Your task to perform on an android device: Clear all items from cart on newegg.com. Add "acer nitro" to the cart on newegg.com Image 0: 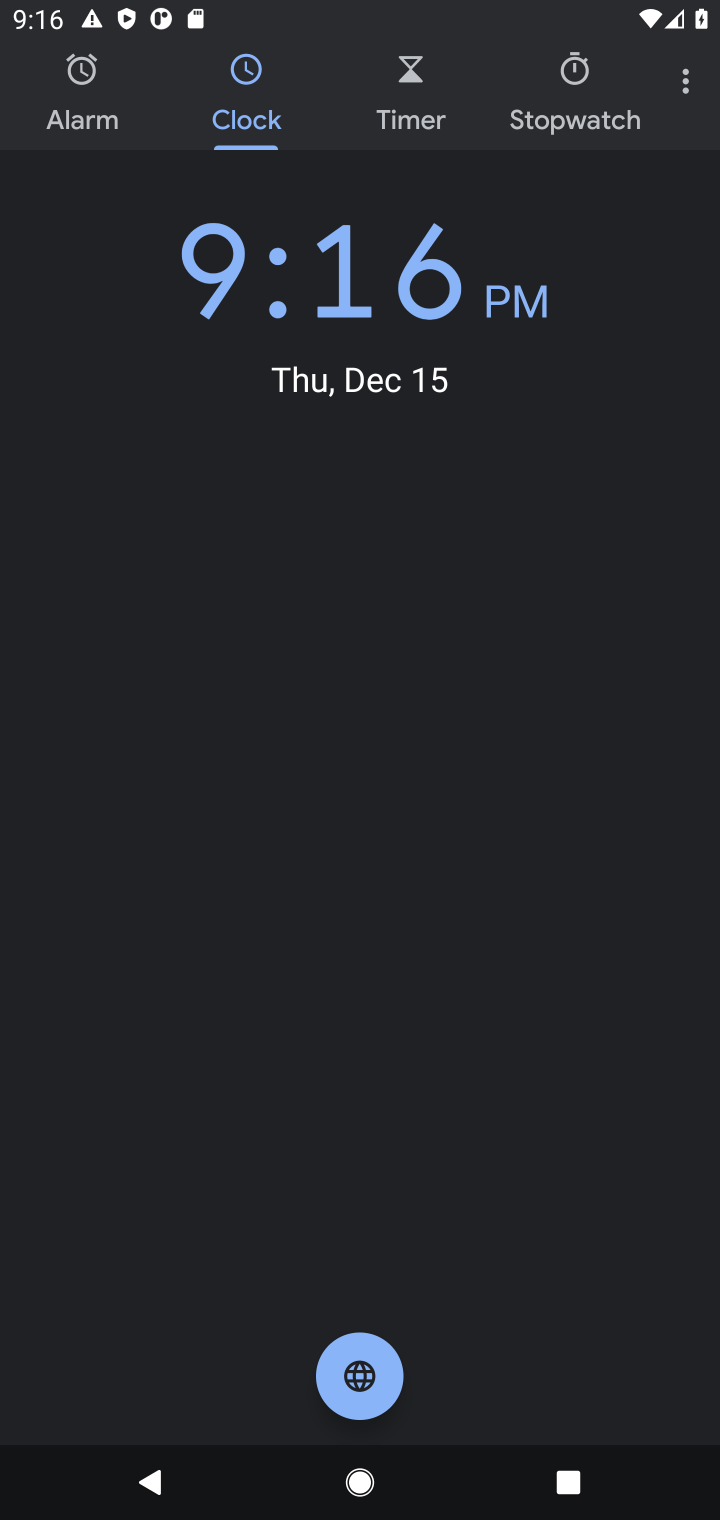
Step 0: press home button
Your task to perform on an android device: Clear all items from cart on newegg.com. Add "acer nitro" to the cart on newegg.com Image 1: 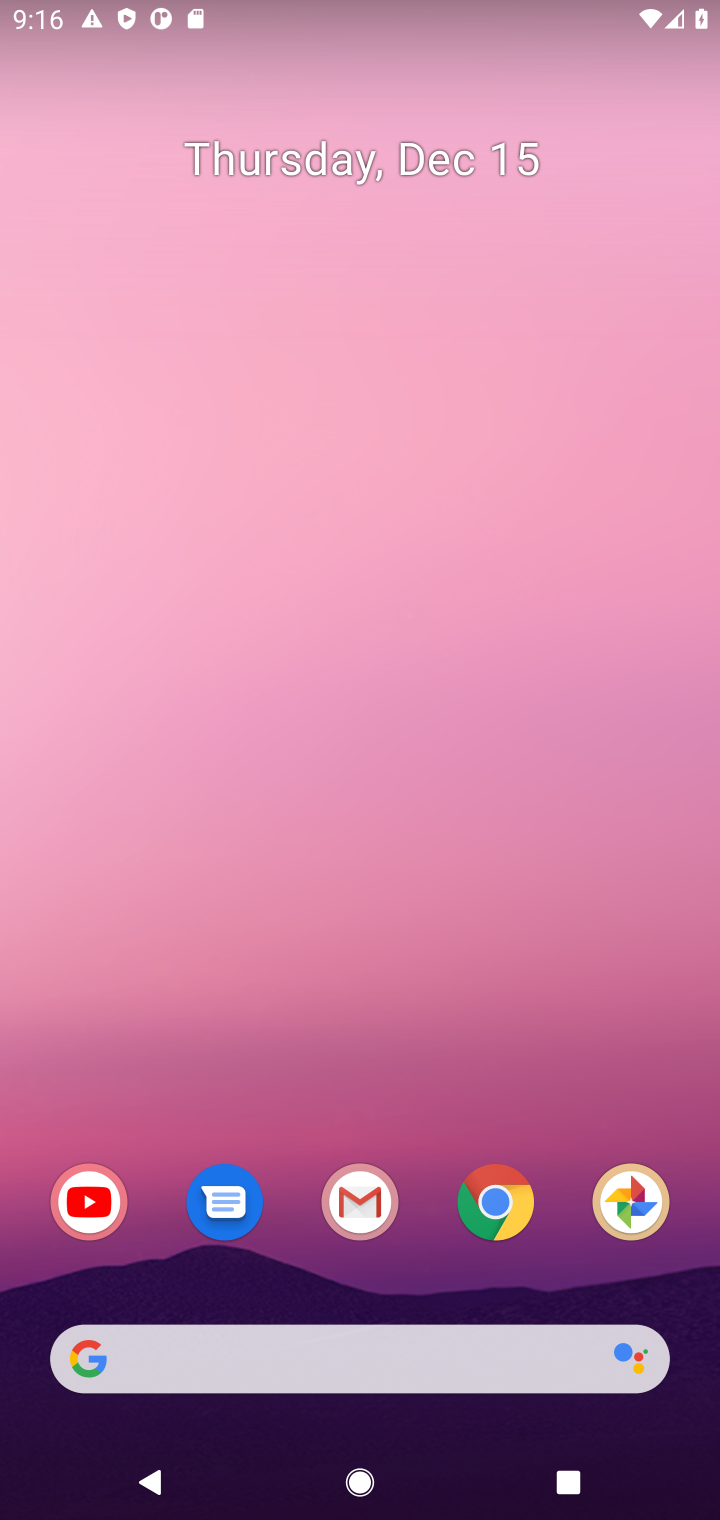
Step 1: click (489, 1207)
Your task to perform on an android device: Clear all items from cart on newegg.com. Add "acer nitro" to the cart on newegg.com Image 2: 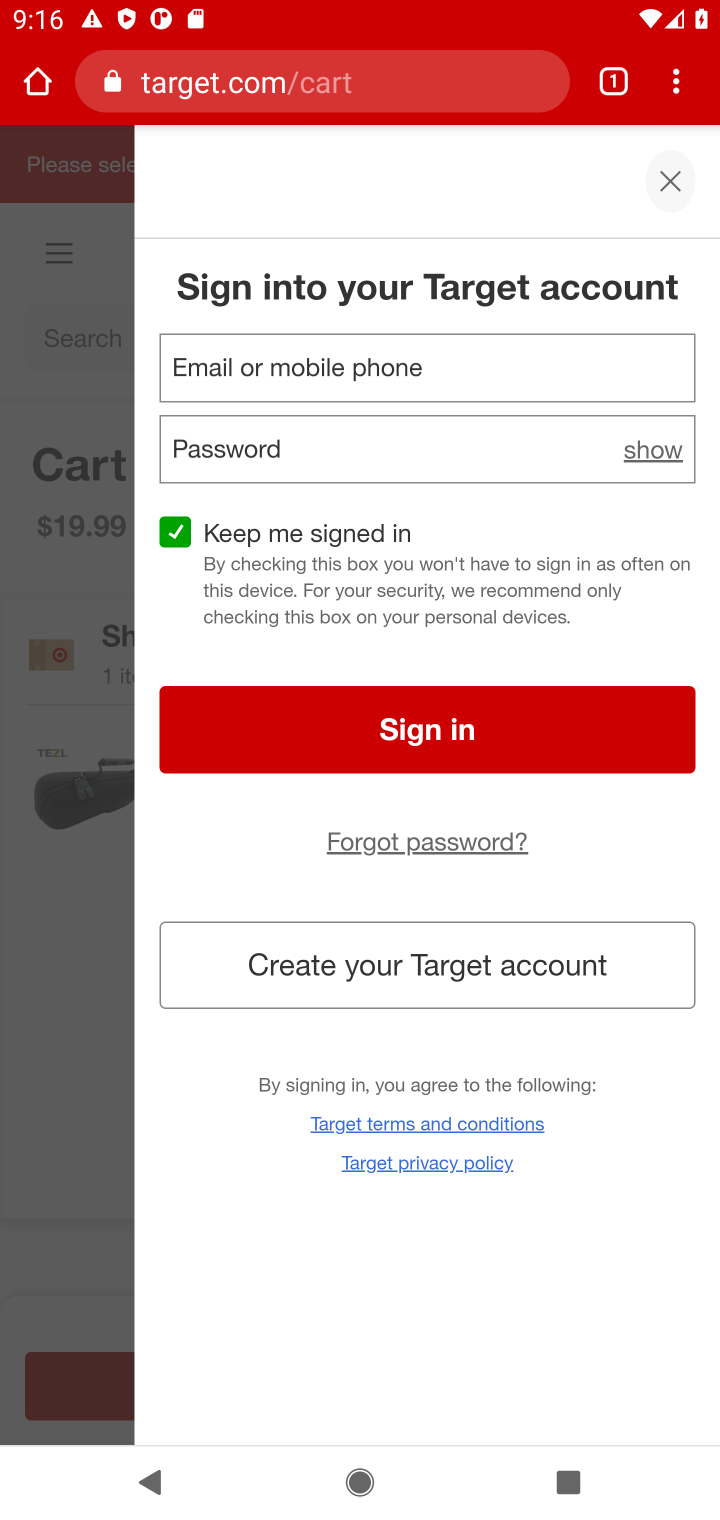
Step 2: click (251, 89)
Your task to perform on an android device: Clear all items from cart on newegg.com. Add "acer nitro" to the cart on newegg.com Image 3: 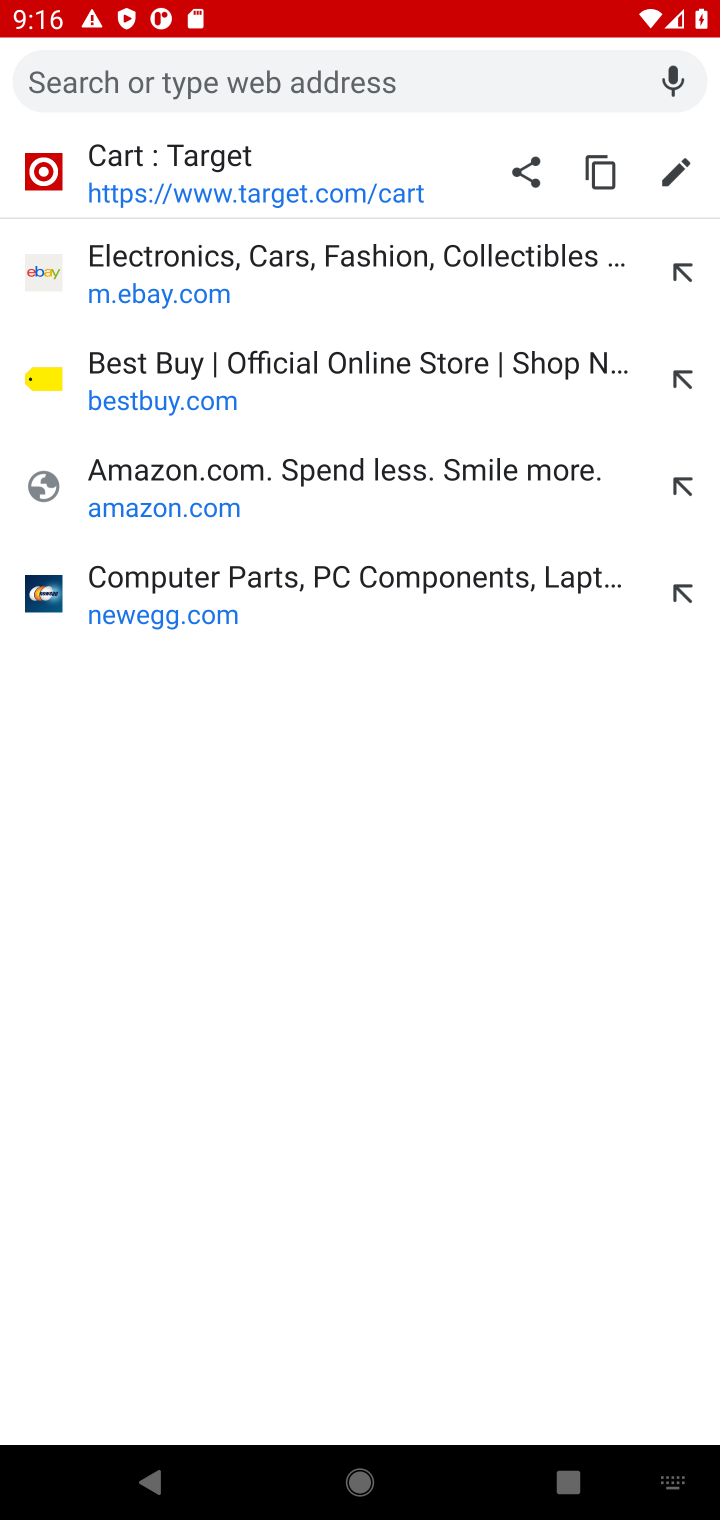
Step 3: click (113, 590)
Your task to perform on an android device: Clear all items from cart on newegg.com. Add "acer nitro" to the cart on newegg.com Image 4: 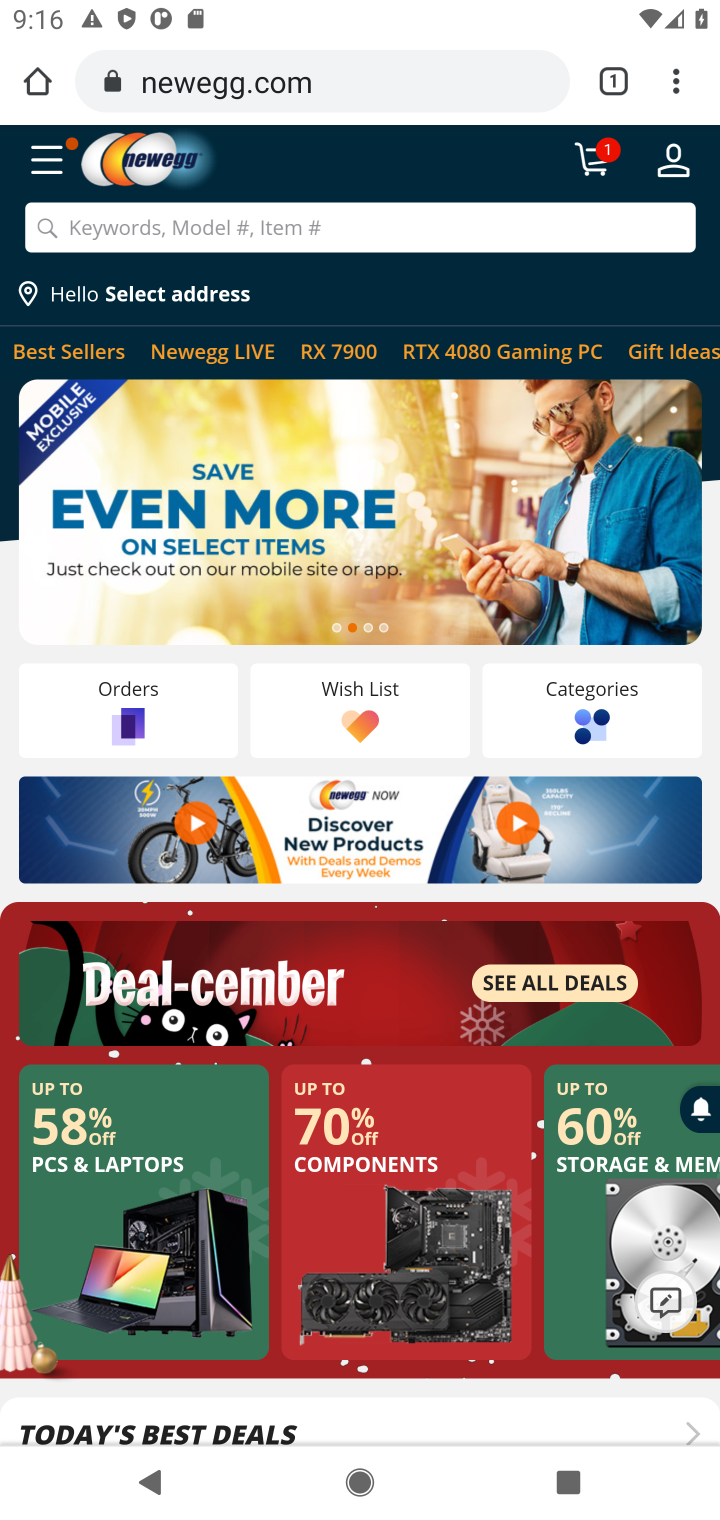
Step 4: click (597, 161)
Your task to perform on an android device: Clear all items from cart on newegg.com. Add "acer nitro" to the cart on newegg.com Image 5: 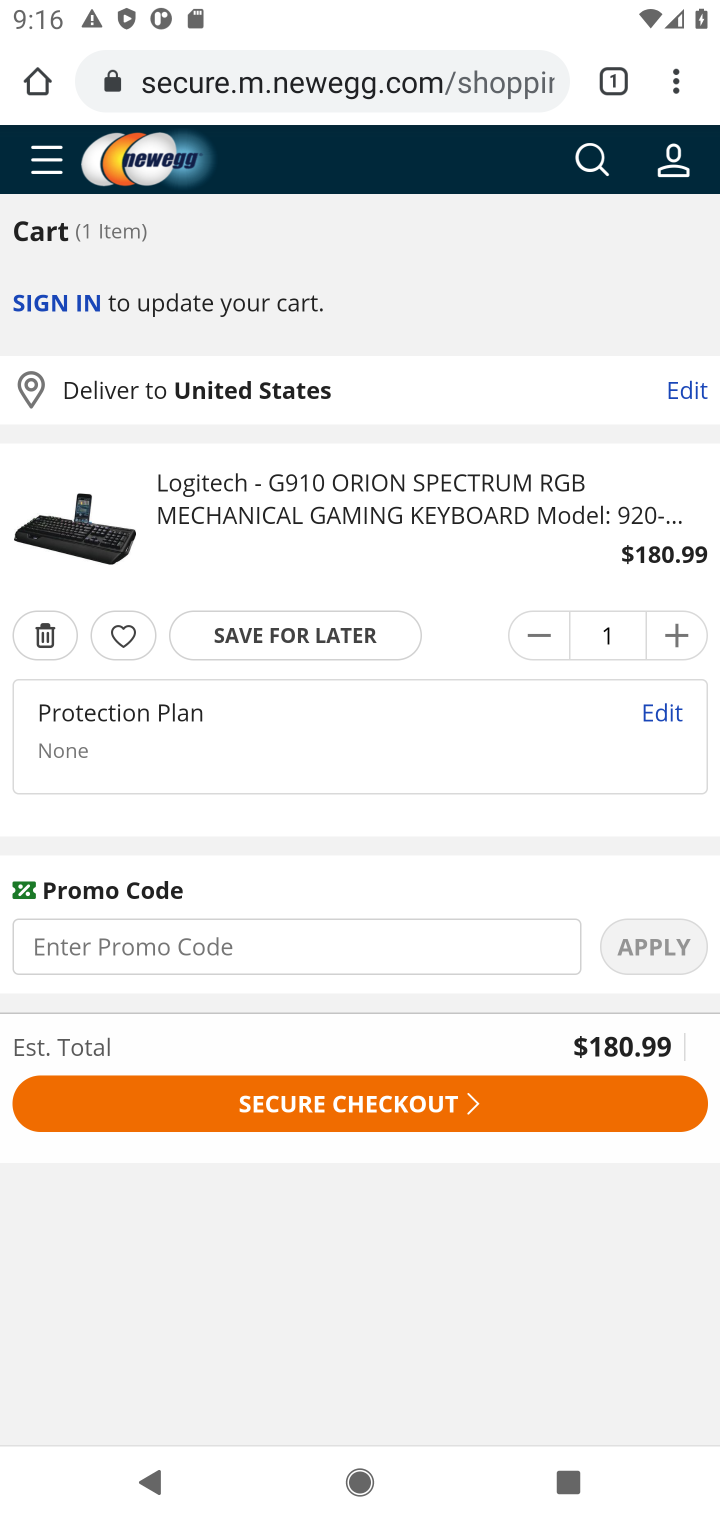
Step 5: click (40, 633)
Your task to perform on an android device: Clear all items from cart on newegg.com. Add "acer nitro" to the cart on newegg.com Image 6: 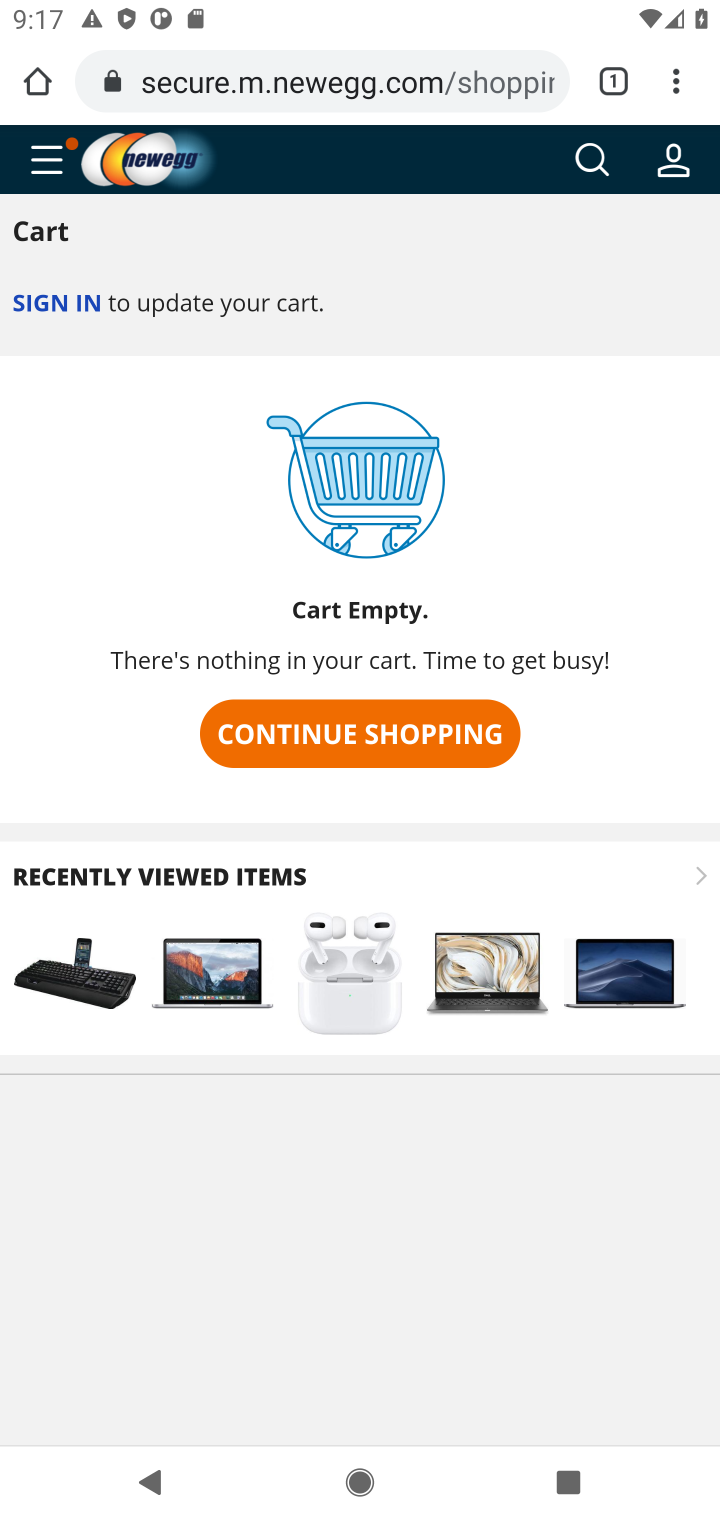
Step 6: click (580, 161)
Your task to perform on an android device: Clear all items from cart on newegg.com. Add "acer nitro" to the cart on newegg.com Image 7: 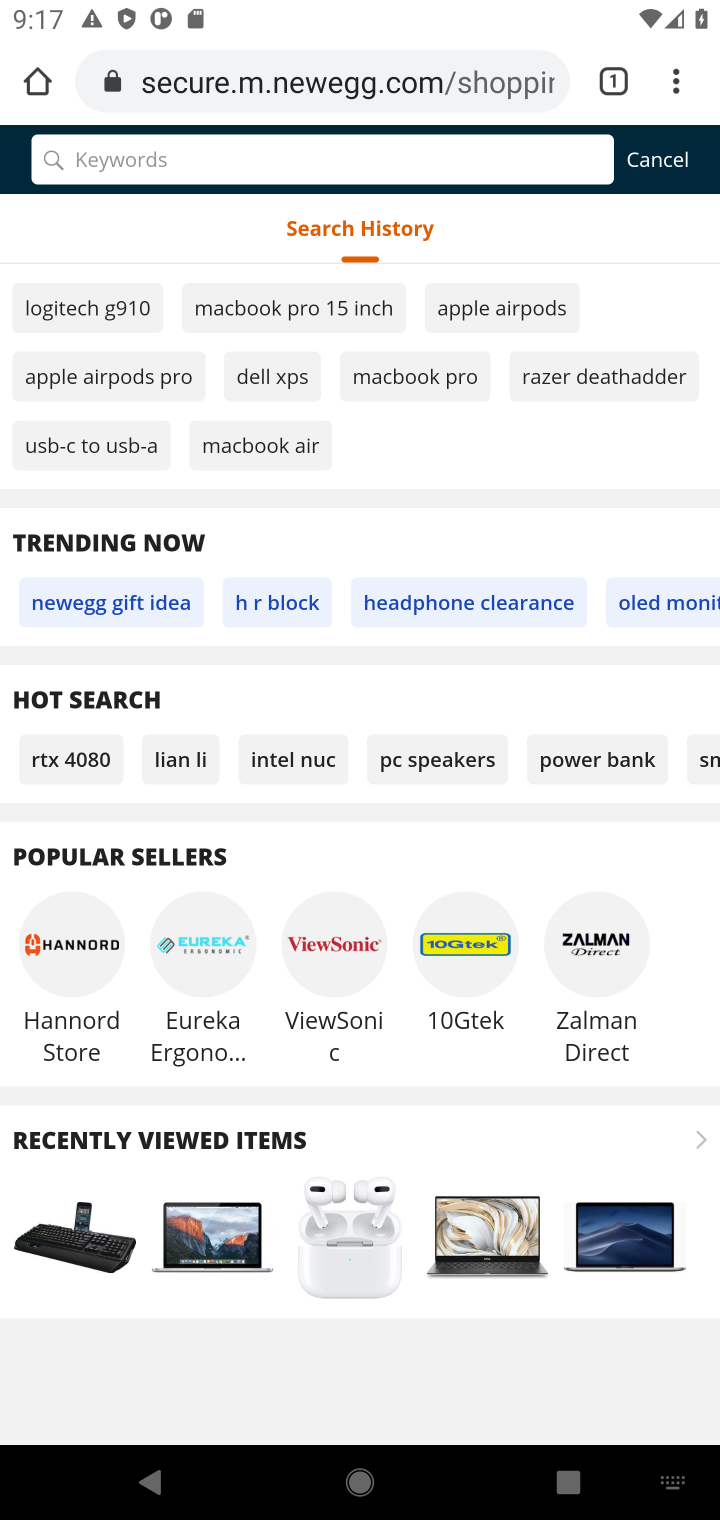
Step 7: type "acer nitro"
Your task to perform on an android device: Clear all items from cart on newegg.com. Add "acer nitro" to the cart on newegg.com Image 8: 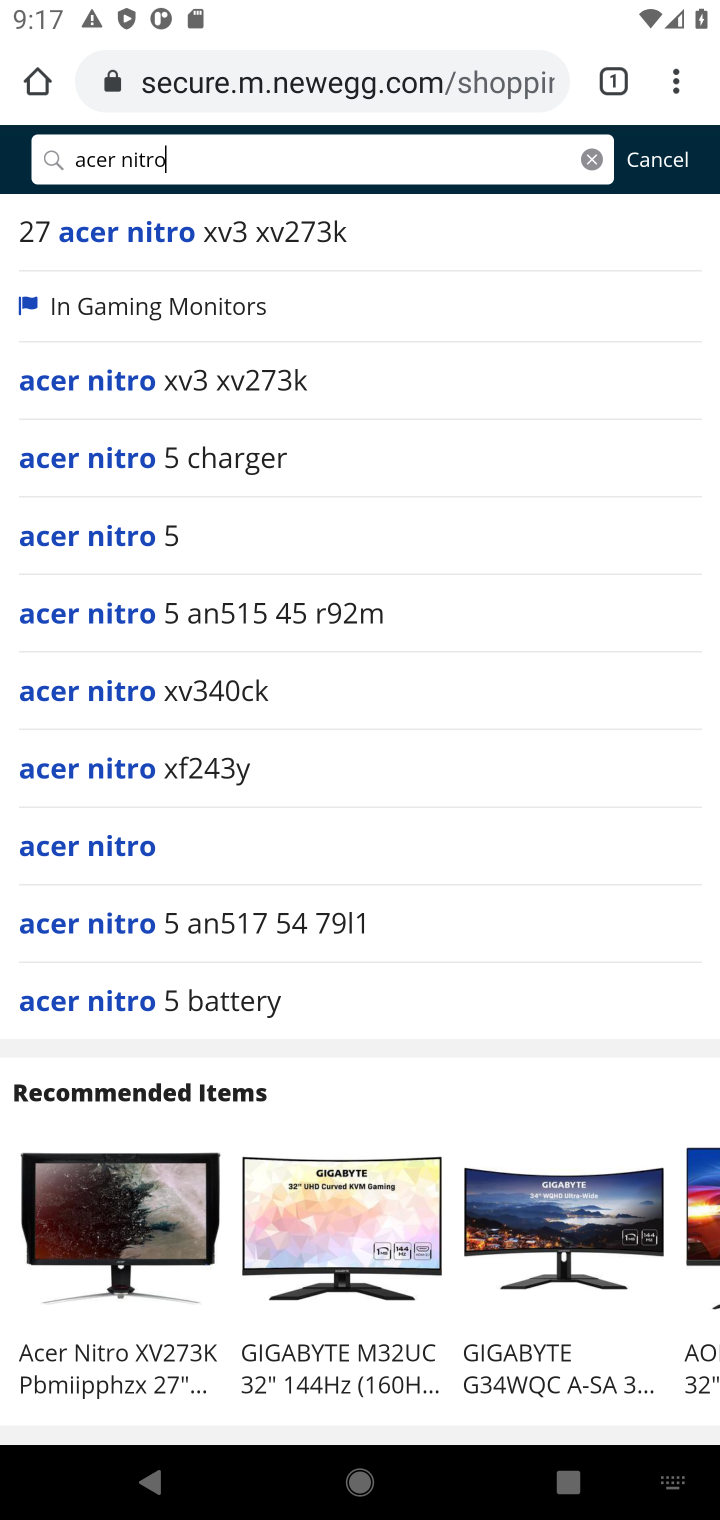
Step 8: click (106, 852)
Your task to perform on an android device: Clear all items from cart on newegg.com. Add "acer nitro" to the cart on newegg.com Image 9: 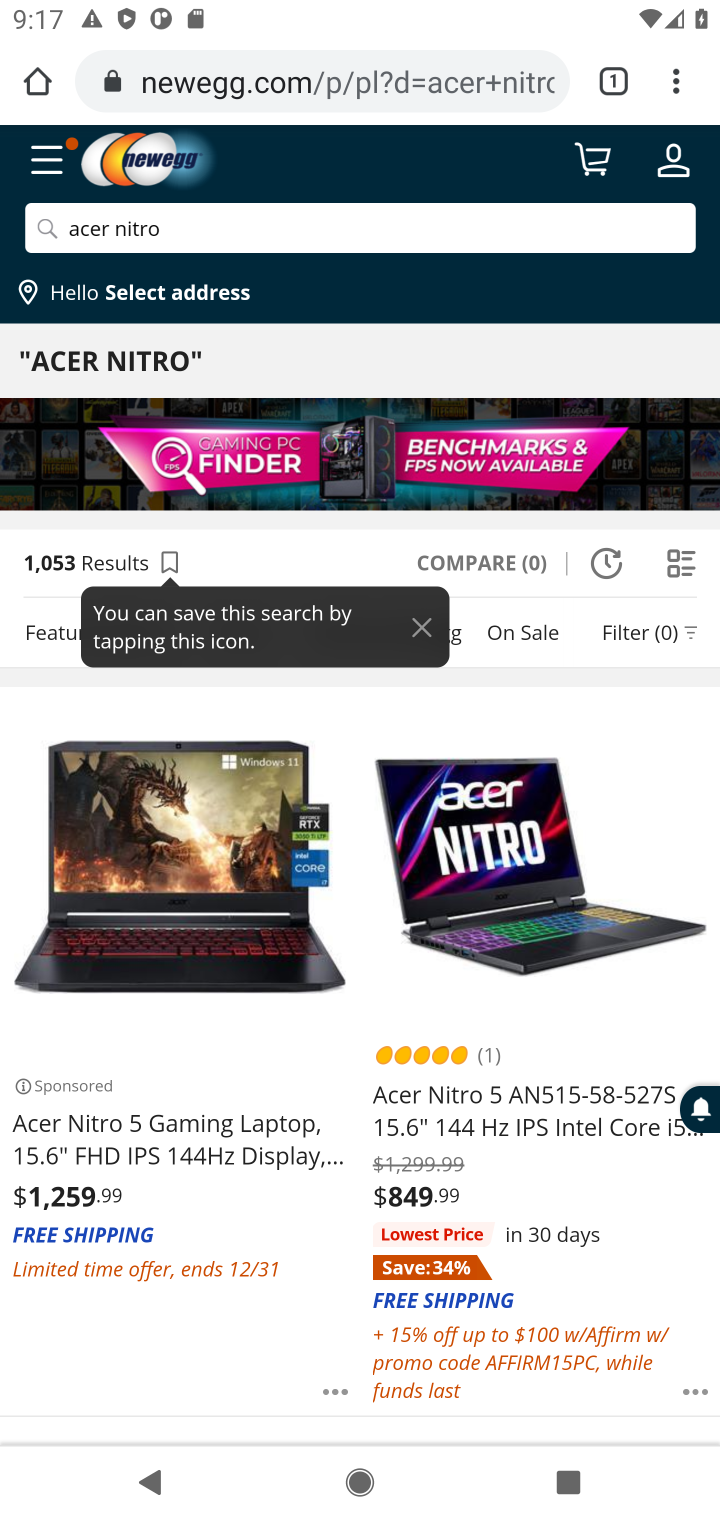
Step 9: click (92, 1157)
Your task to perform on an android device: Clear all items from cart on newegg.com. Add "acer nitro" to the cart on newegg.com Image 10: 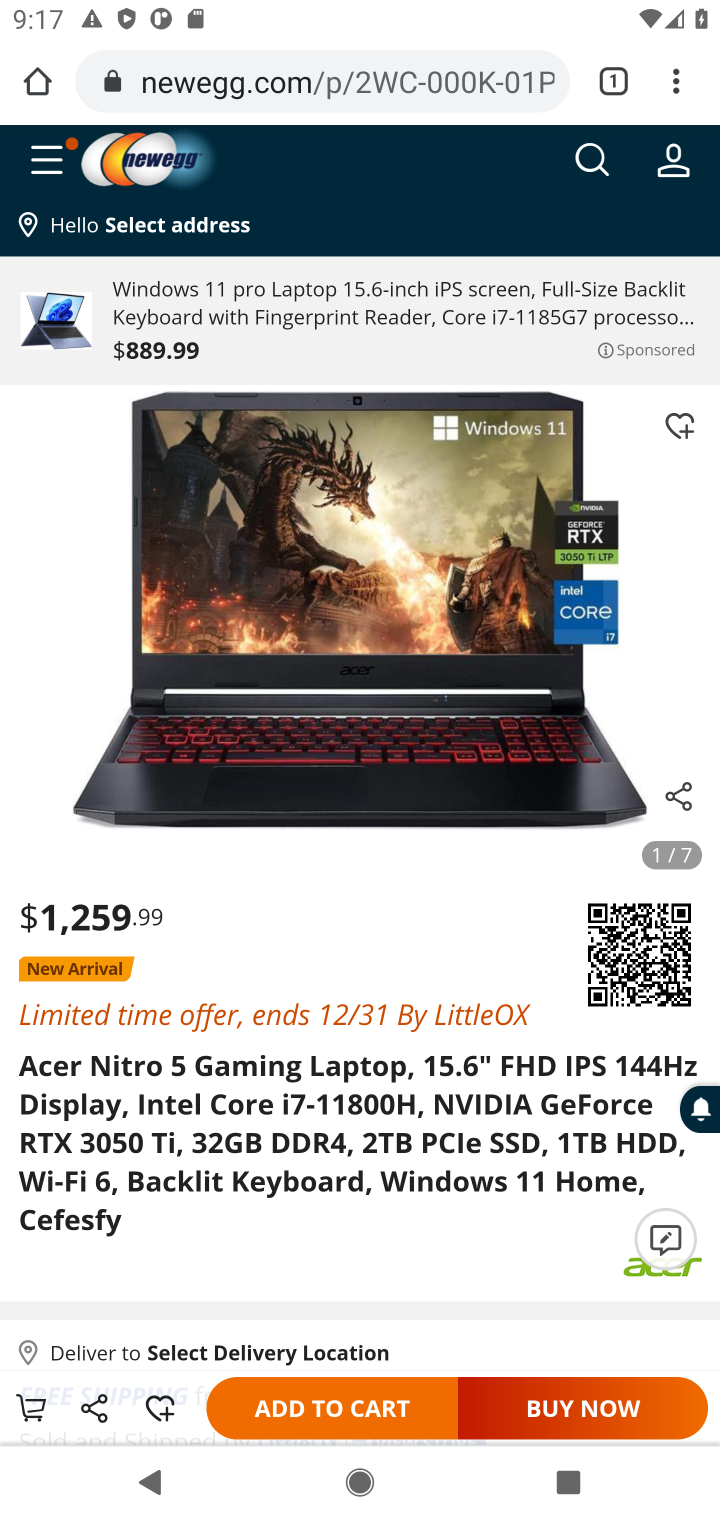
Step 10: click (335, 1413)
Your task to perform on an android device: Clear all items from cart on newegg.com. Add "acer nitro" to the cart on newegg.com Image 11: 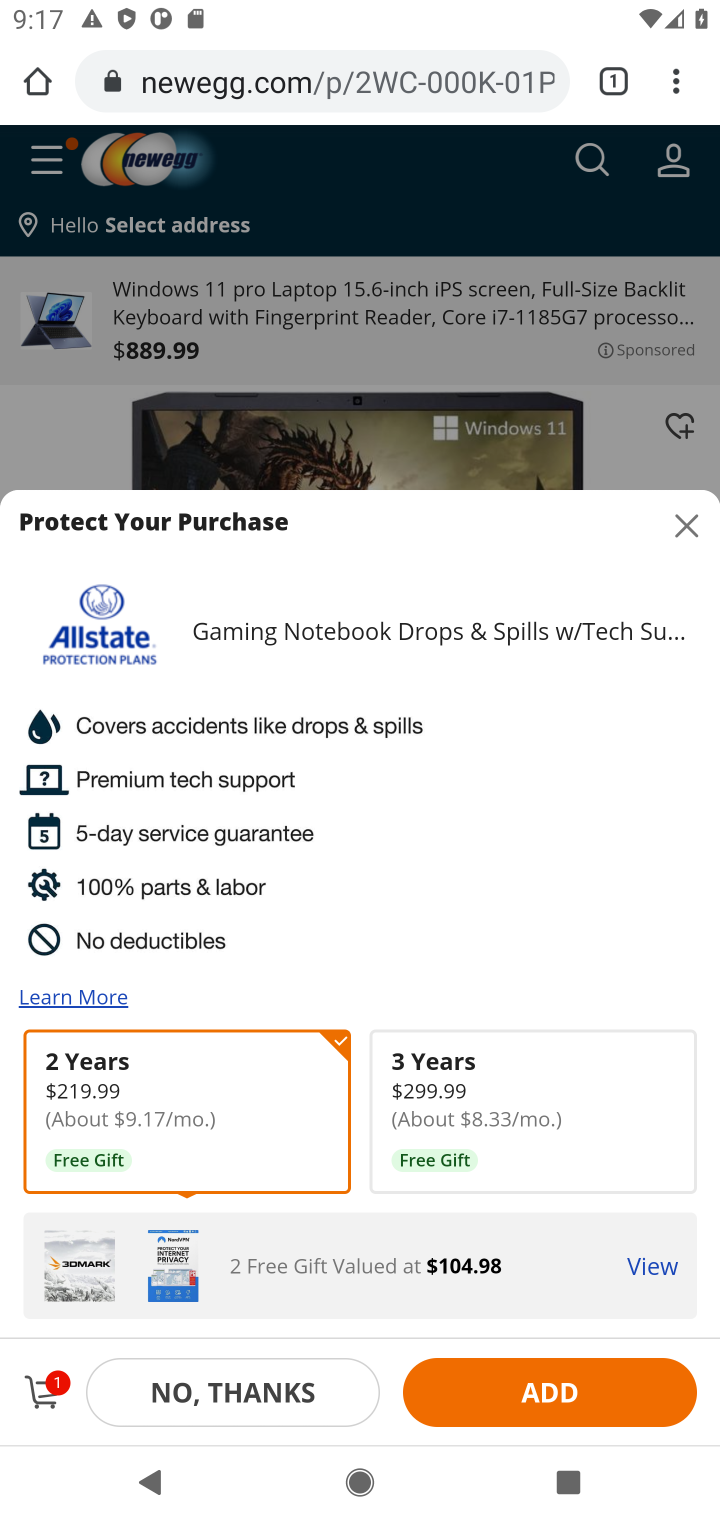
Step 11: task complete